Your task to perform on an android device: Open Chrome and go to the settings page Image 0: 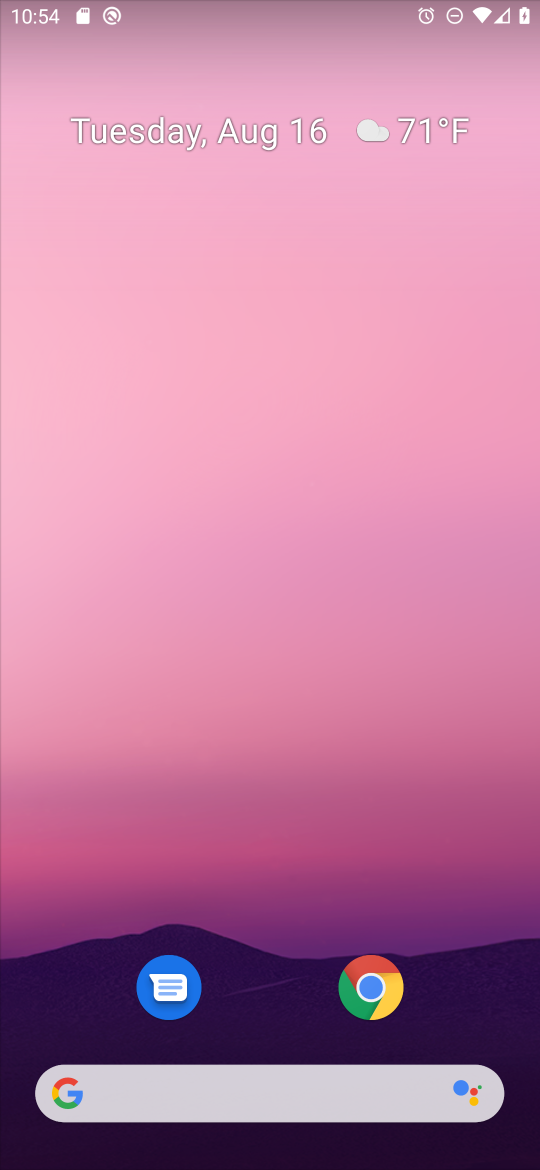
Step 0: click (32, 1133)
Your task to perform on an android device: Open Chrome and go to the settings page Image 1: 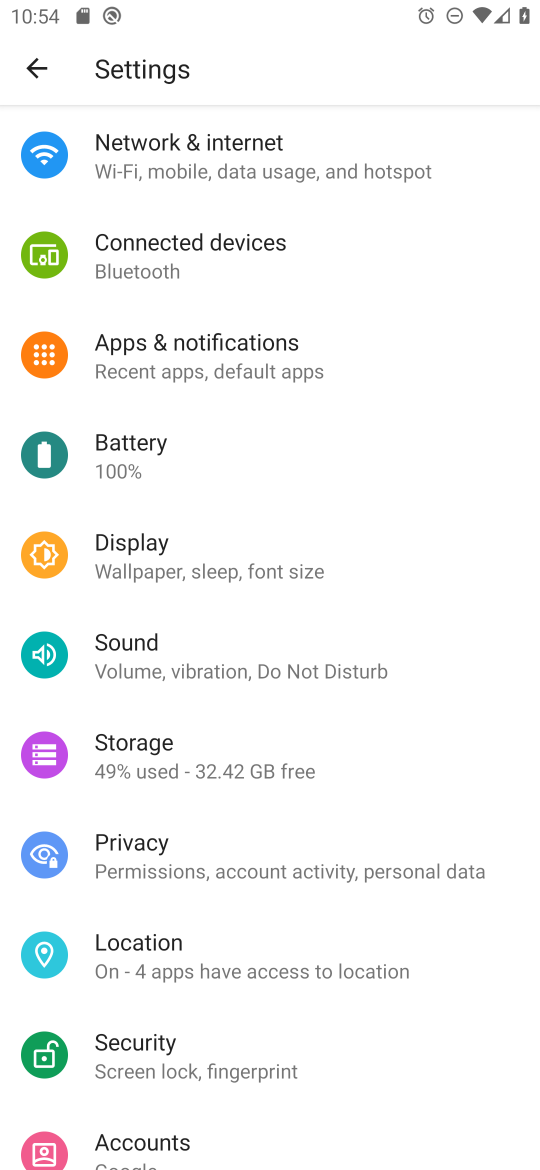
Step 1: press home button
Your task to perform on an android device: Open Chrome and go to the settings page Image 2: 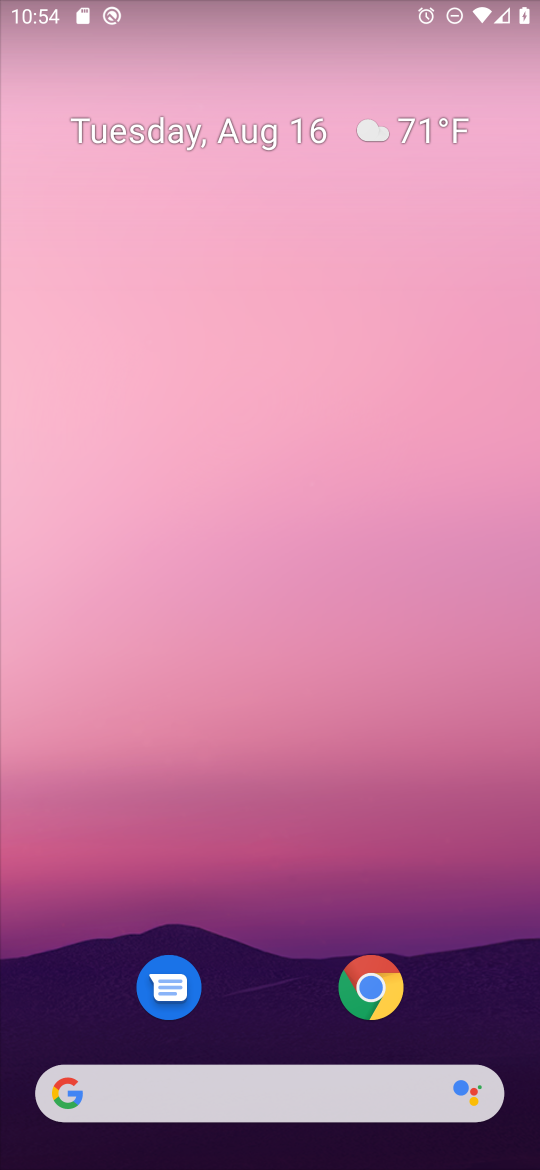
Step 2: drag from (35, 1123) to (233, 382)
Your task to perform on an android device: Open Chrome and go to the settings page Image 3: 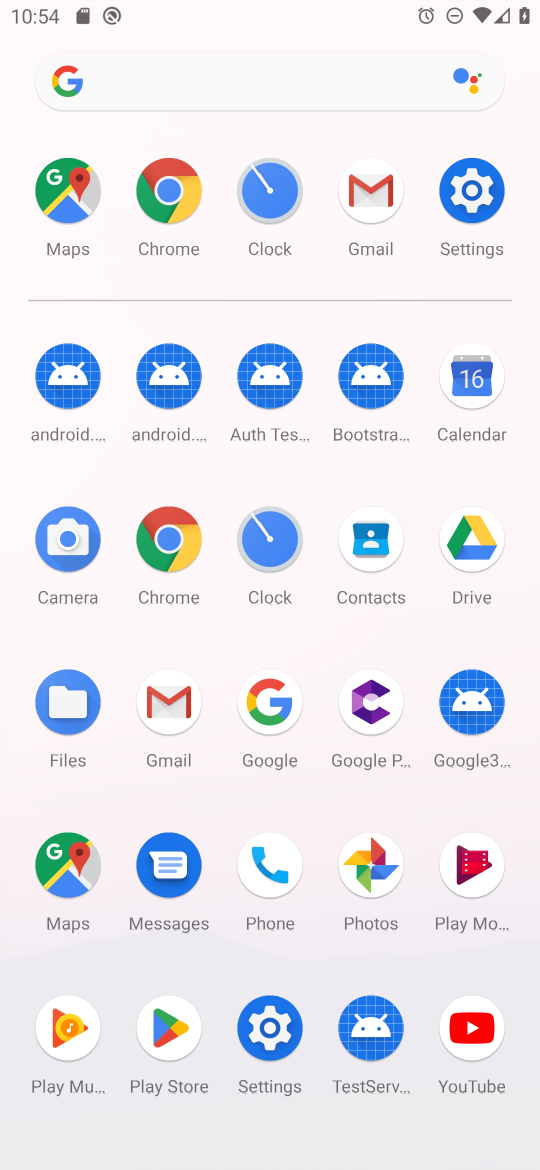
Step 3: click (178, 571)
Your task to perform on an android device: Open Chrome and go to the settings page Image 4: 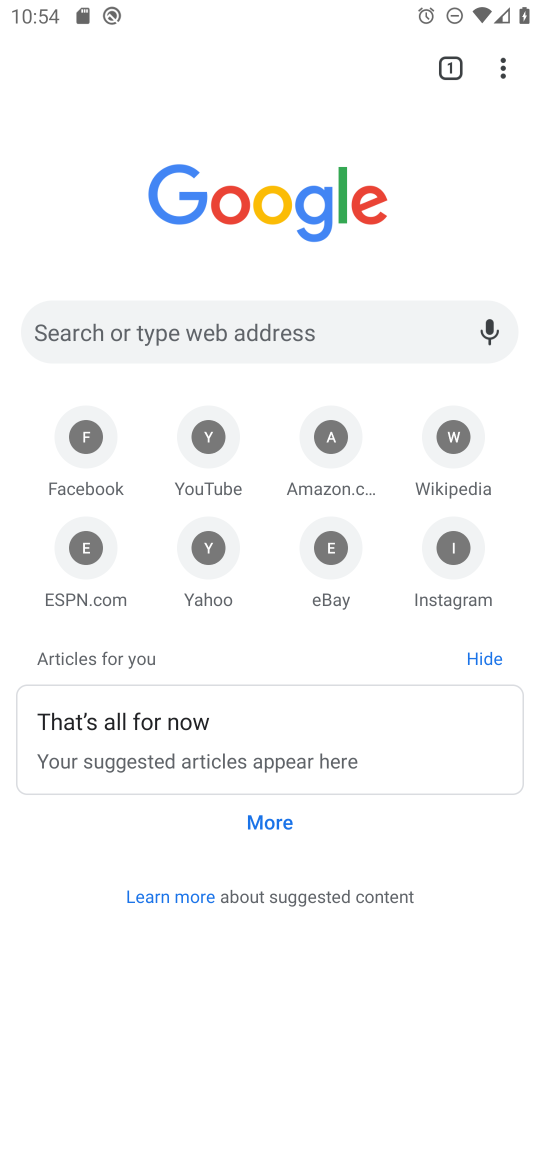
Step 4: click (510, 75)
Your task to perform on an android device: Open Chrome and go to the settings page Image 5: 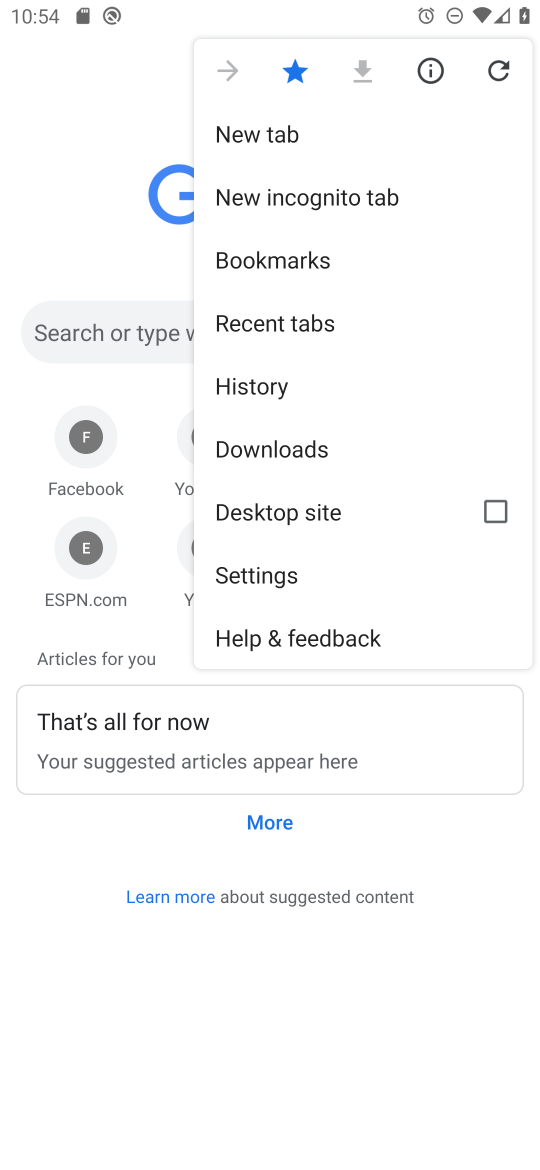
Step 5: click (221, 564)
Your task to perform on an android device: Open Chrome and go to the settings page Image 6: 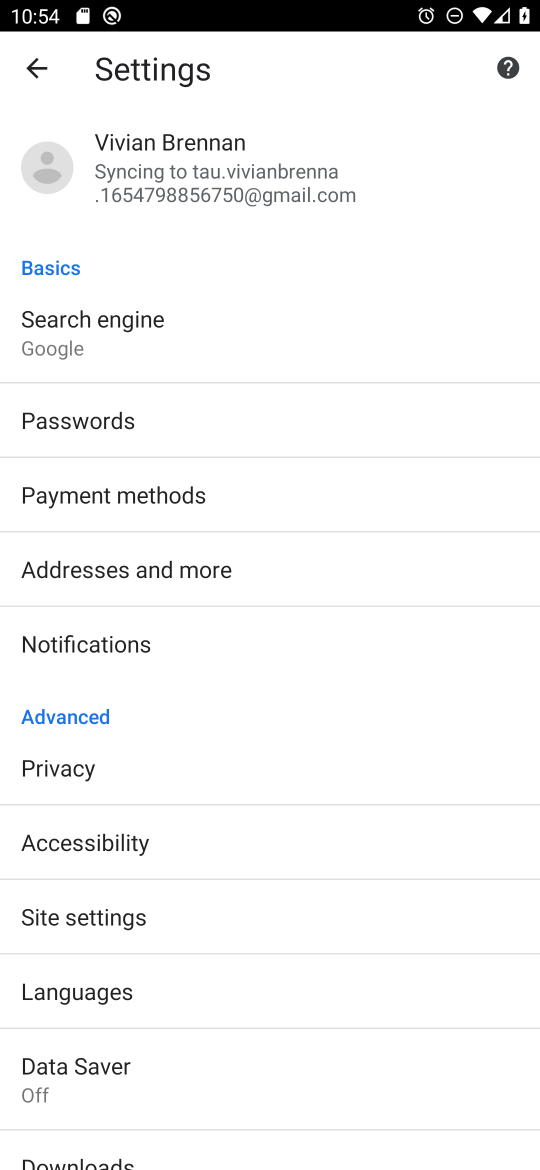
Step 6: task complete